Your task to perform on an android device: When is my next appointment? Image 0: 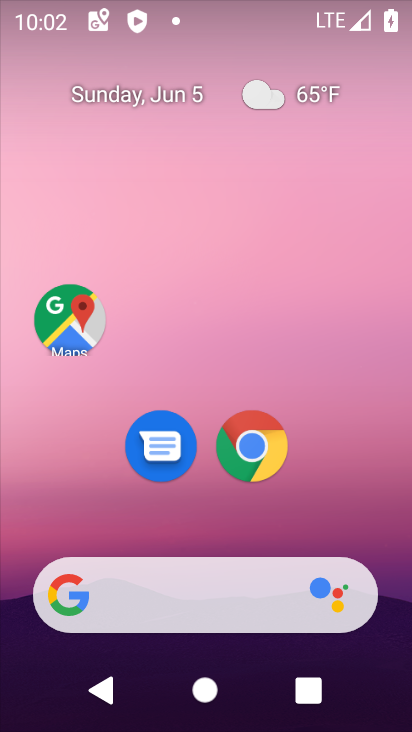
Step 0: drag from (220, 528) to (143, 74)
Your task to perform on an android device: When is my next appointment? Image 1: 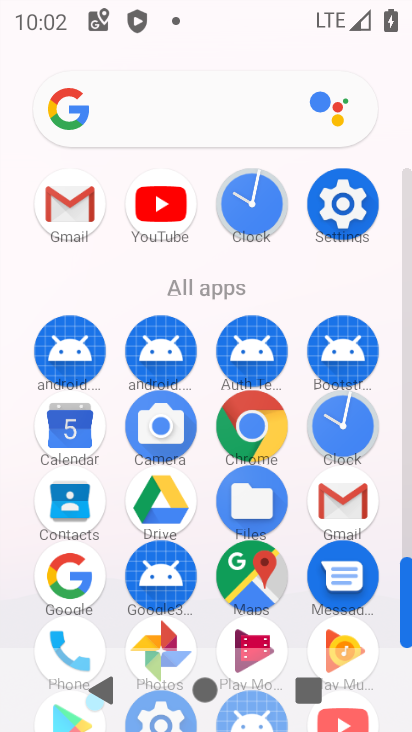
Step 1: click (55, 439)
Your task to perform on an android device: When is my next appointment? Image 2: 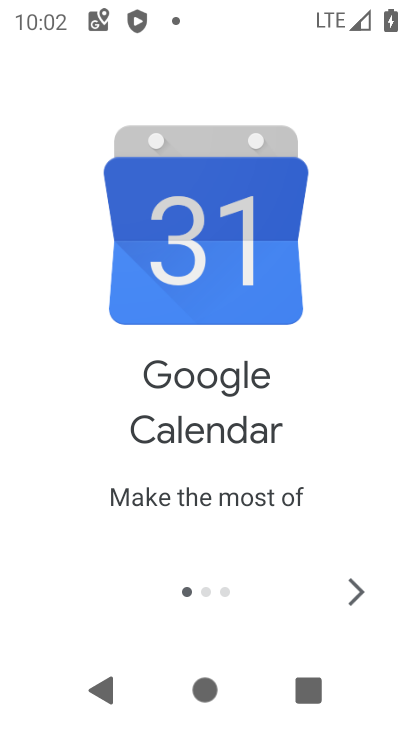
Step 2: click (352, 594)
Your task to perform on an android device: When is my next appointment? Image 3: 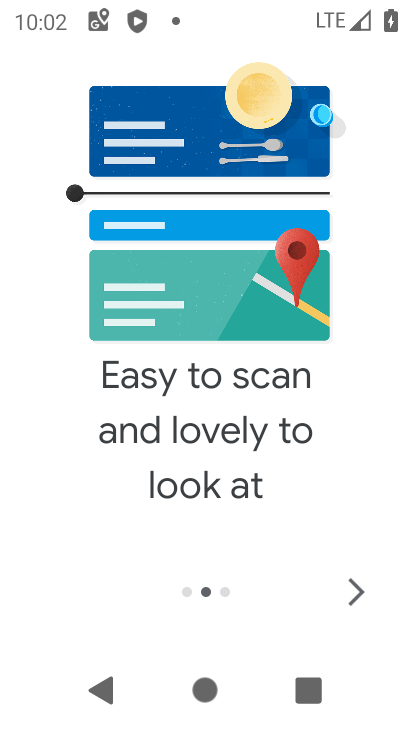
Step 3: click (354, 589)
Your task to perform on an android device: When is my next appointment? Image 4: 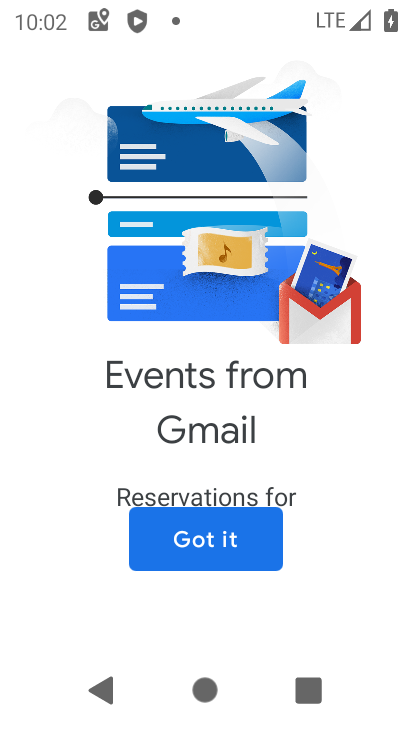
Step 4: click (236, 543)
Your task to perform on an android device: When is my next appointment? Image 5: 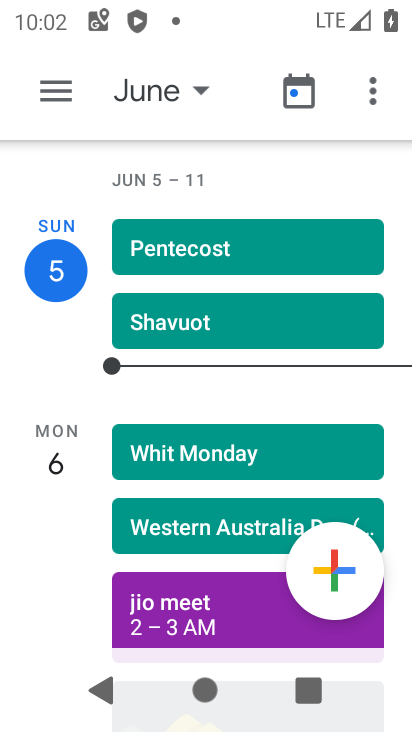
Step 5: task complete